Your task to perform on an android device: Search for flights from NYC to San Diego Image 0: 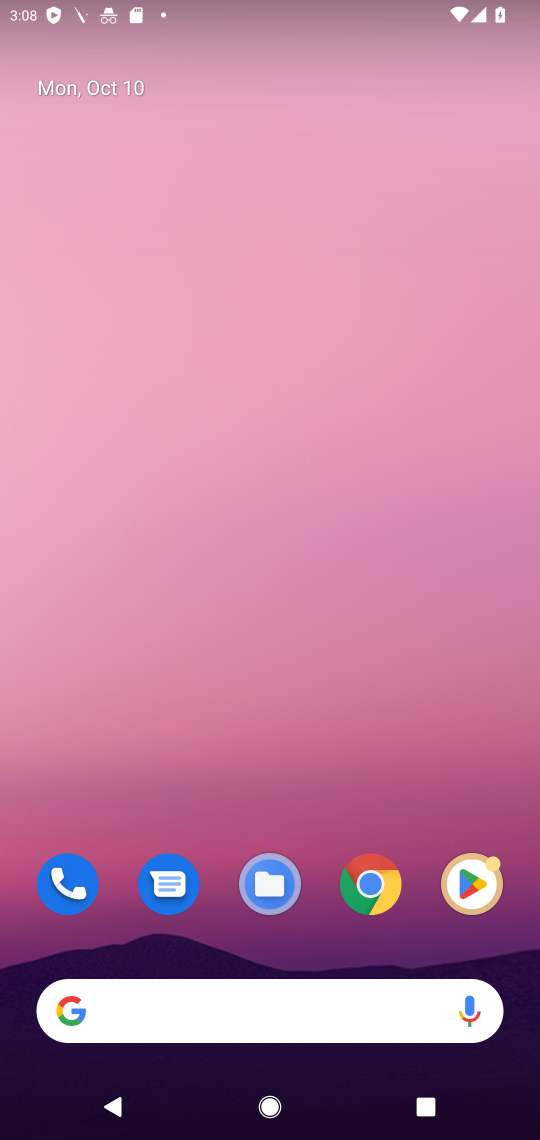
Step 0: click (322, 1026)
Your task to perform on an android device: Search for flights from NYC to San Diego Image 1: 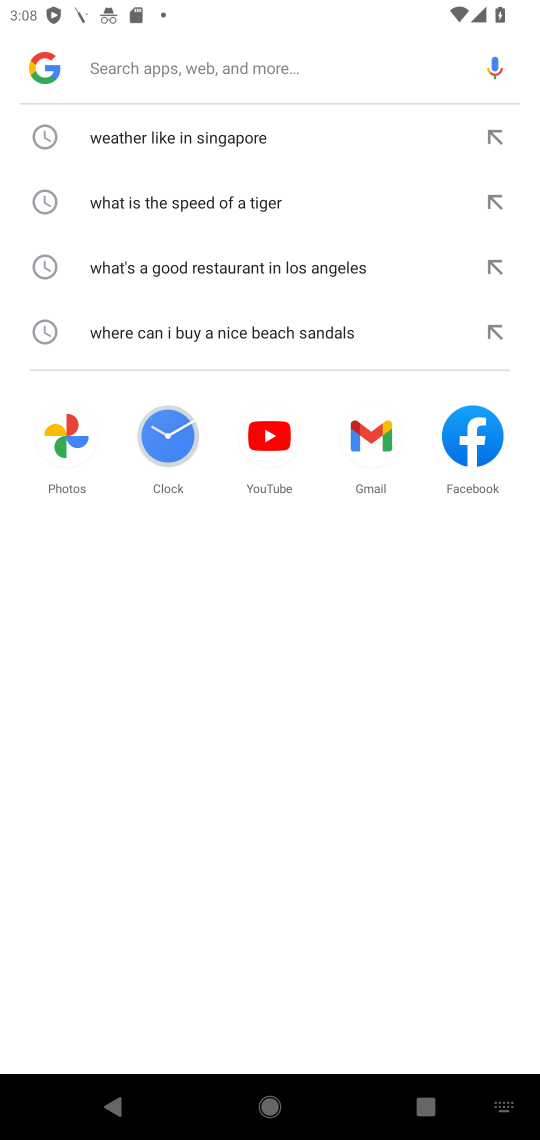
Step 1: type "flights from NYC to San Diego"
Your task to perform on an android device: Search for flights from NYC to San Diego Image 2: 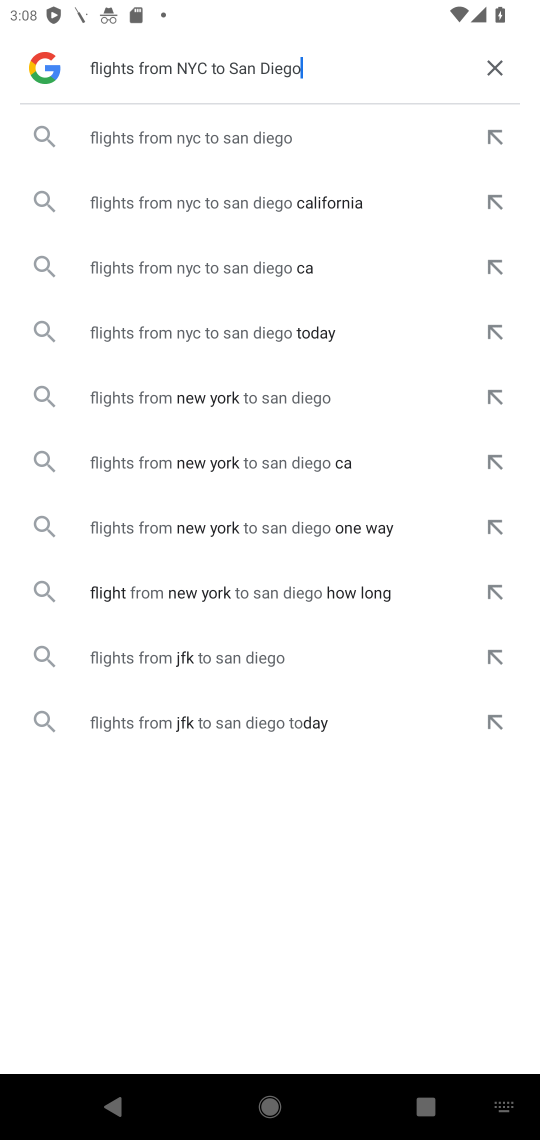
Step 2: click (209, 142)
Your task to perform on an android device: Search for flights from NYC to San Diego Image 3: 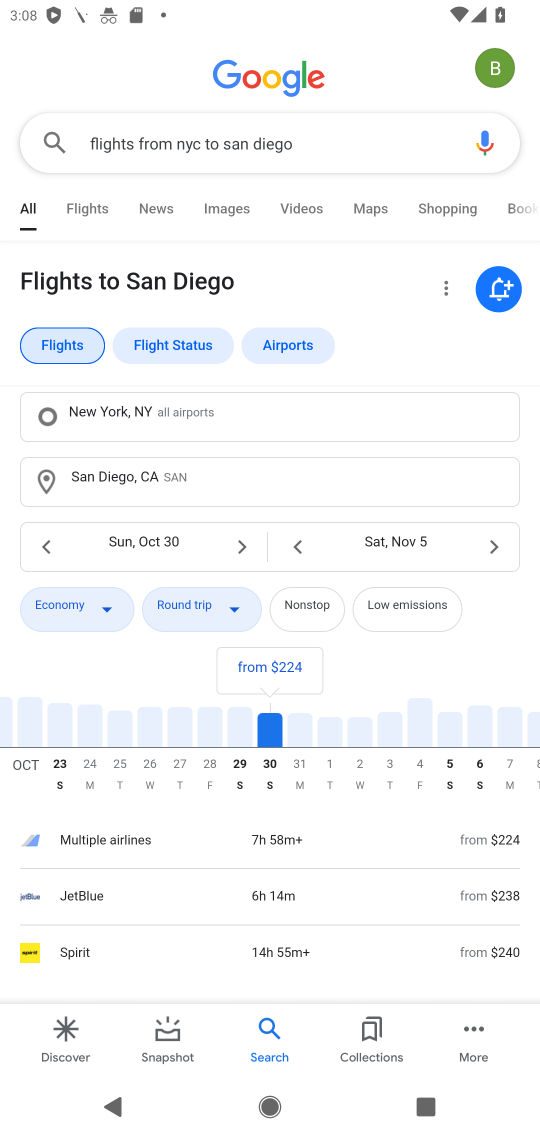
Step 3: task complete